Your task to perform on an android device: Open privacy settings Image 0: 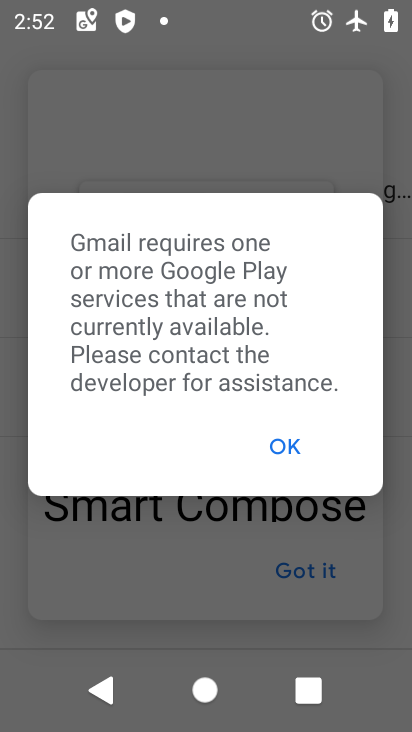
Step 0: press home button
Your task to perform on an android device: Open privacy settings Image 1: 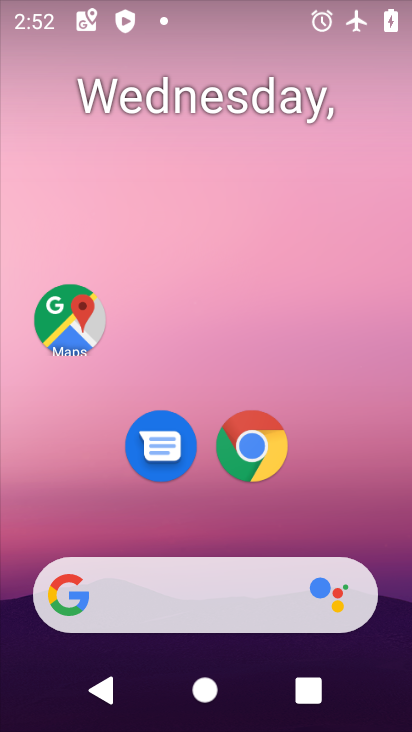
Step 1: drag from (244, 516) to (245, 206)
Your task to perform on an android device: Open privacy settings Image 2: 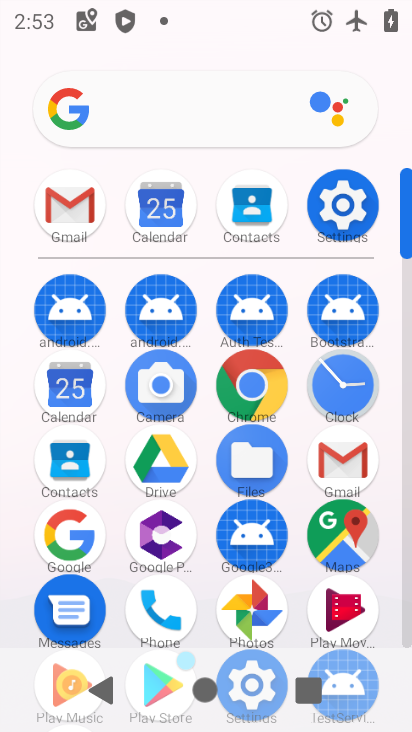
Step 2: click (336, 216)
Your task to perform on an android device: Open privacy settings Image 3: 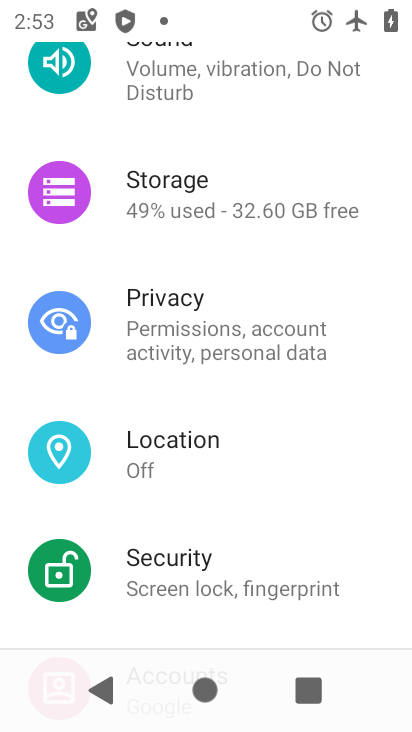
Step 3: click (187, 334)
Your task to perform on an android device: Open privacy settings Image 4: 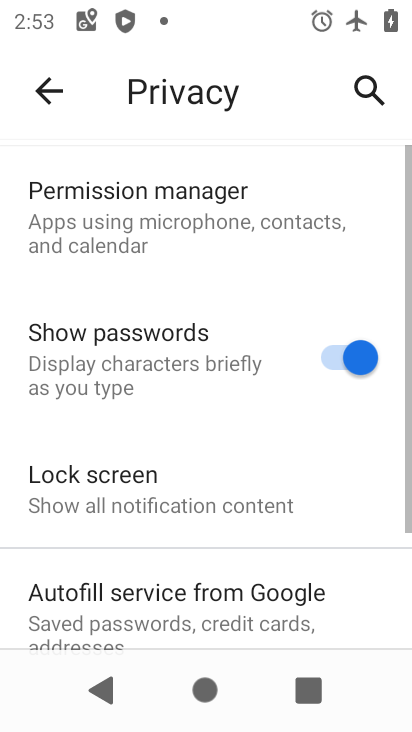
Step 4: task complete